Your task to perform on an android device: Do I have any events tomorrow? Image 0: 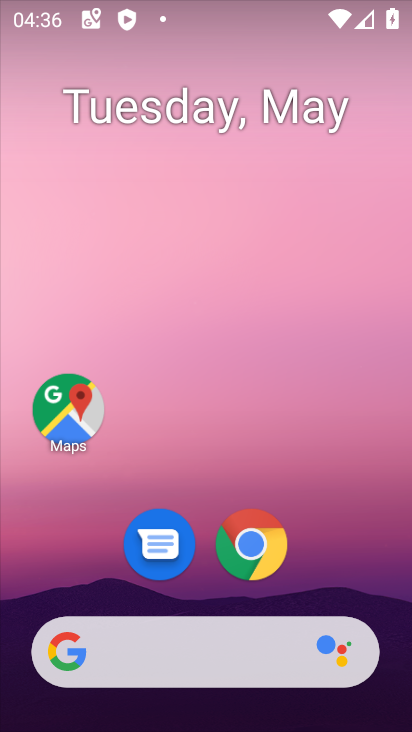
Step 0: drag from (237, 618) to (318, 125)
Your task to perform on an android device: Do I have any events tomorrow? Image 1: 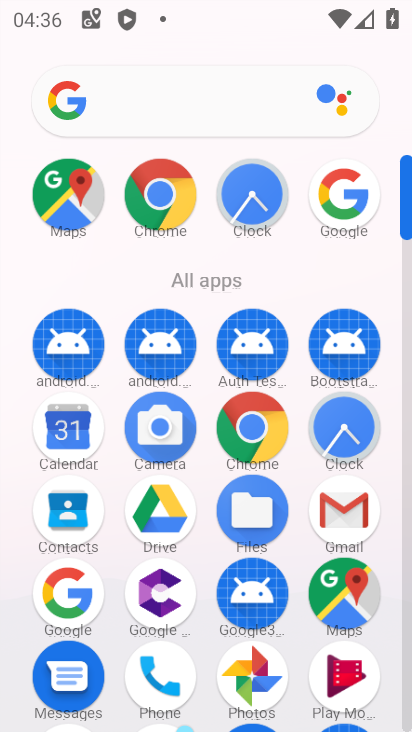
Step 1: click (69, 439)
Your task to perform on an android device: Do I have any events tomorrow? Image 2: 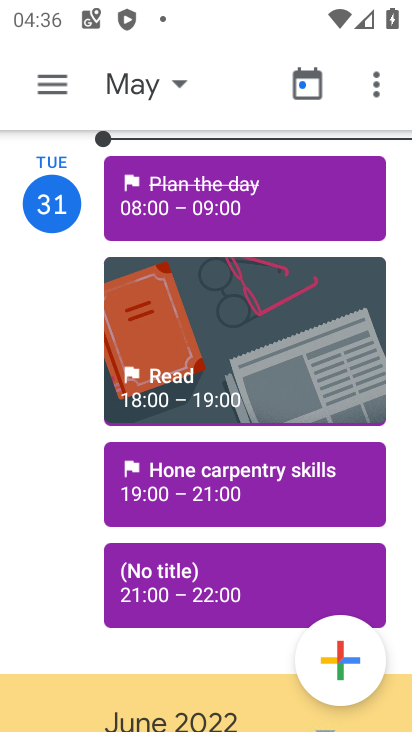
Step 2: click (3, 316)
Your task to perform on an android device: Do I have any events tomorrow? Image 3: 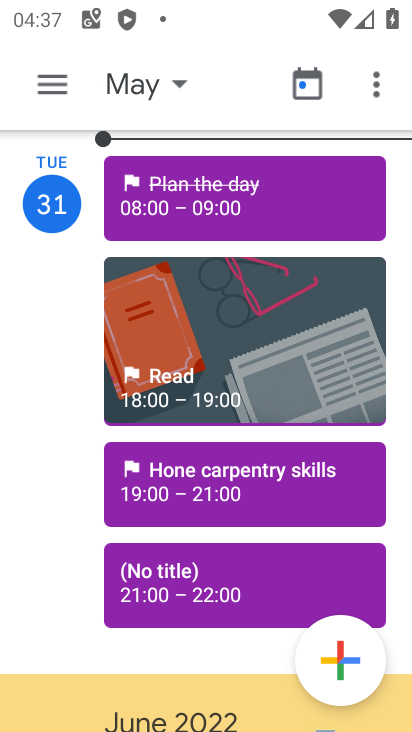
Step 3: click (148, 91)
Your task to perform on an android device: Do I have any events tomorrow? Image 4: 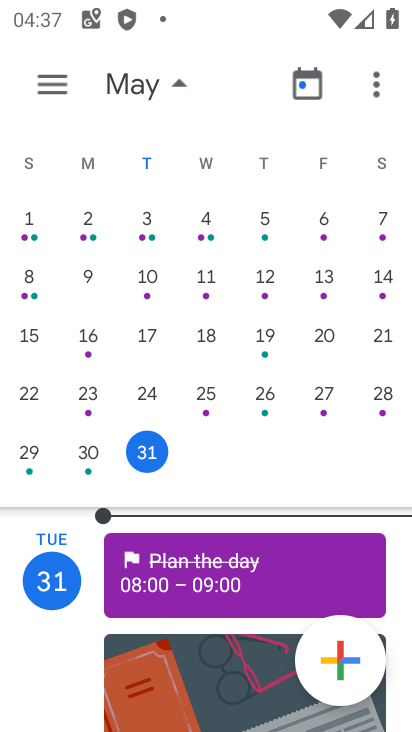
Step 4: click (186, 87)
Your task to perform on an android device: Do I have any events tomorrow? Image 5: 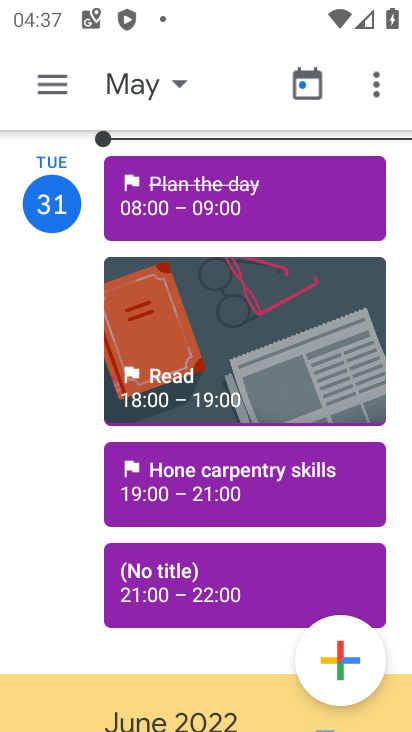
Step 5: task complete